Your task to perform on an android device: open app "The Home Depot" (install if not already installed) Image 0: 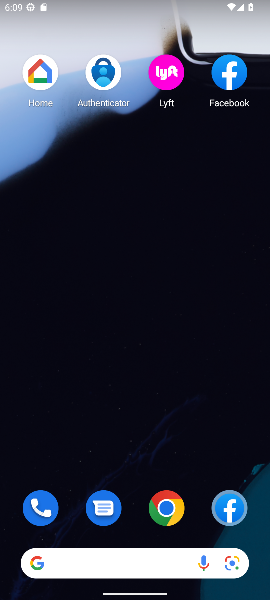
Step 0: drag from (144, 528) to (109, 60)
Your task to perform on an android device: open app "The Home Depot" (install if not already installed) Image 1: 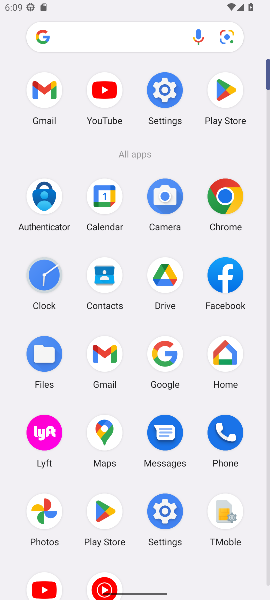
Step 1: click (108, 522)
Your task to perform on an android device: open app "The Home Depot" (install if not already installed) Image 2: 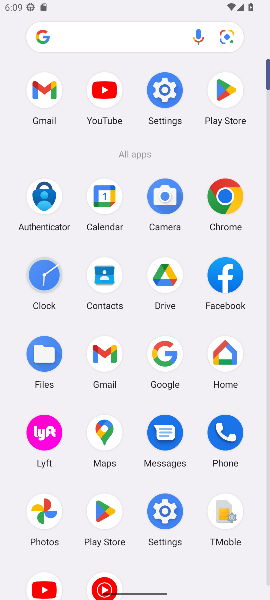
Step 2: click (96, 502)
Your task to perform on an android device: open app "The Home Depot" (install if not already installed) Image 3: 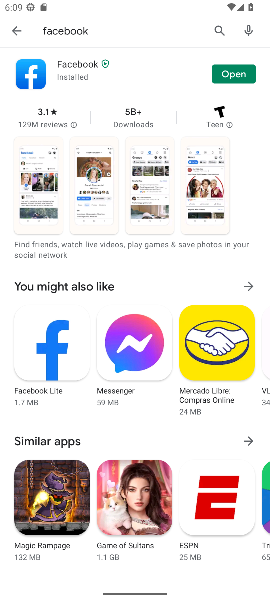
Step 3: click (19, 29)
Your task to perform on an android device: open app "The Home Depot" (install if not already installed) Image 4: 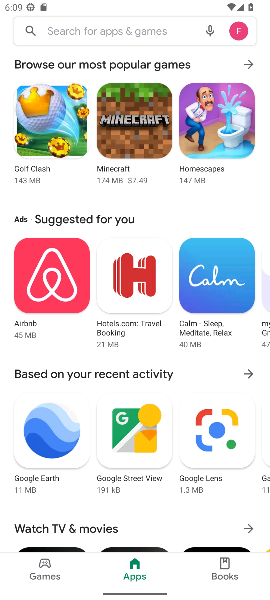
Step 4: click (67, 25)
Your task to perform on an android device: open app "The Home Depot" (install if not already installed) Image 5: 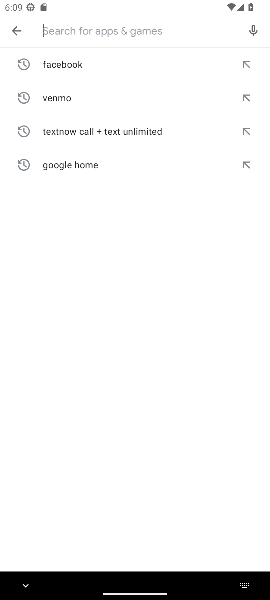
Step 5: type "The Home Depot"
Your task to perform on an android device: open app "The Home Depot" (install if not already installed) Image 6: 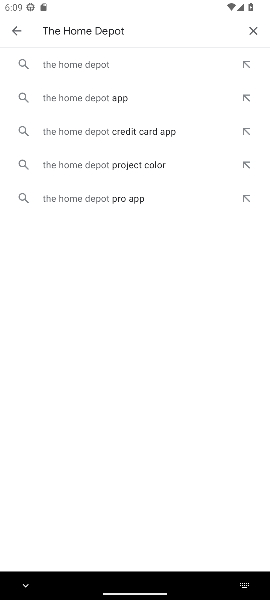
Step 6: click (52, 80)
Your task to perform on an android device: open app "The Home Depot" (install if not already installed) Image 7: 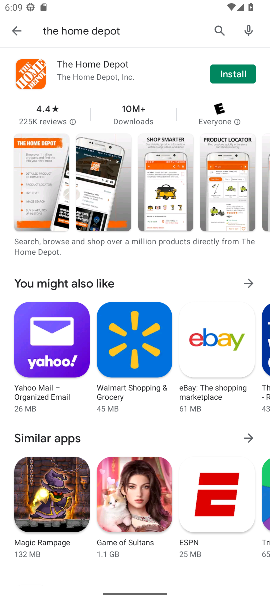
Step 7: click (235, 70)
Your task to perform on an android device: open app "The Home Depot" (install if not already installed) Image 8: 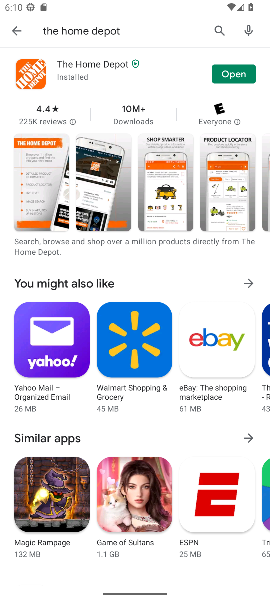
Step 8: click (239, 76)
Your task to perform on an android device: open app "The Home Depot" (install if not already installed) Image 9: 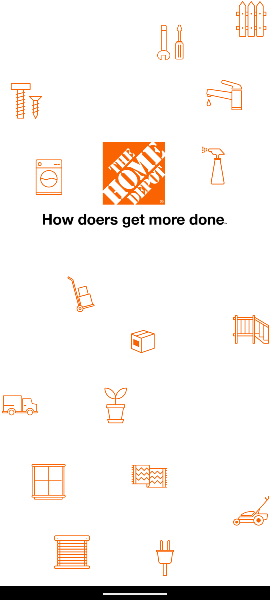
Step 9: task complete